Your task to perform on an android device: change the clock display to analog Image 0: 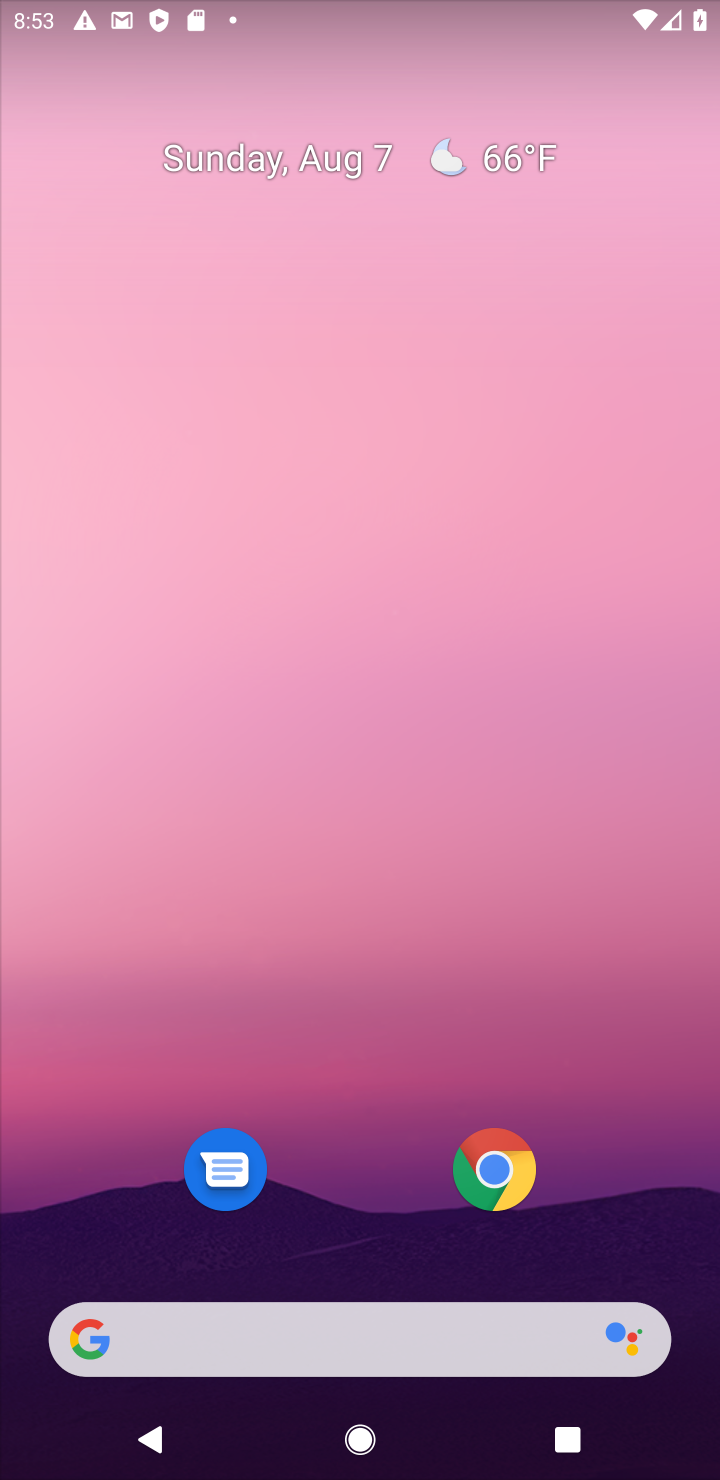
Step 0: drag from (327, 1265) to (198, 129)
Your task to perform on an android device: change the clock display to analog Image 1: 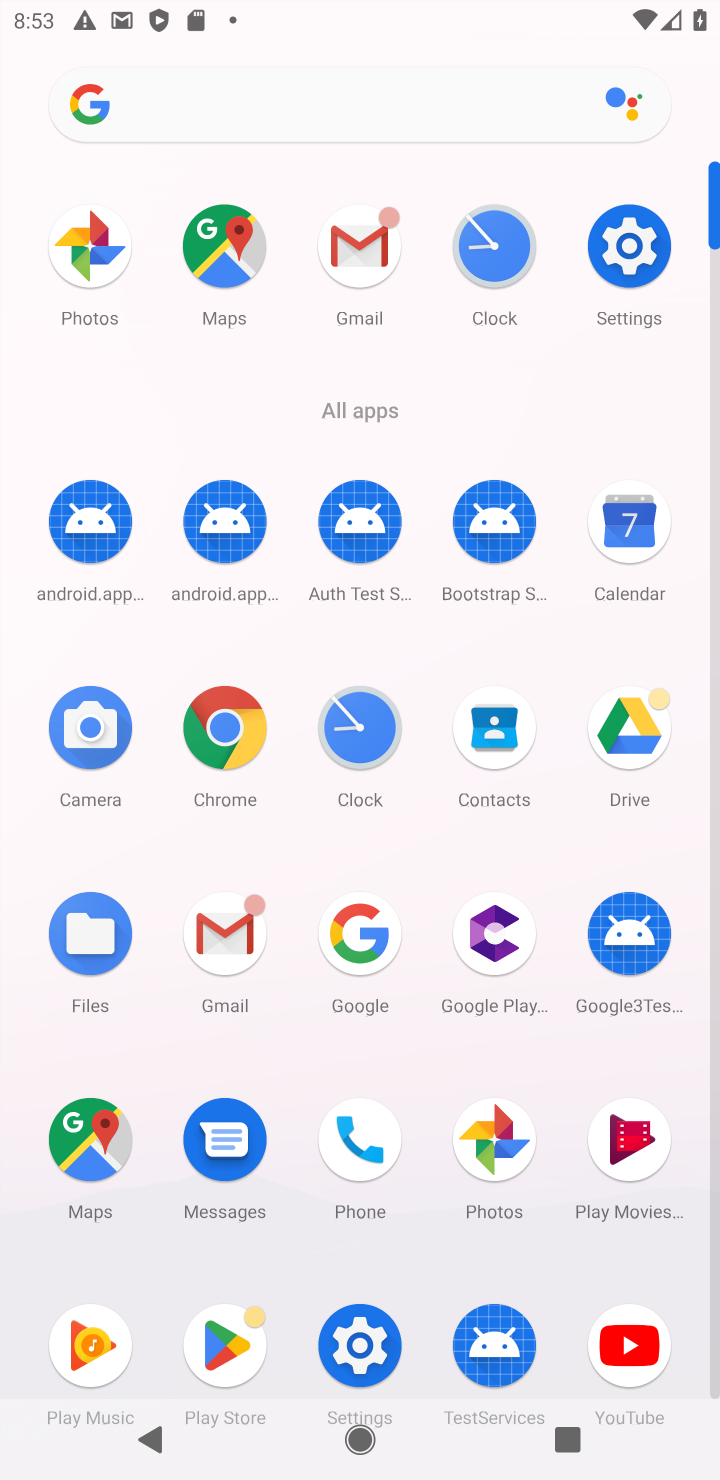
Step 1: click (354, 723)
Your task to perform on an android device: change the clock display to analog Image 2: 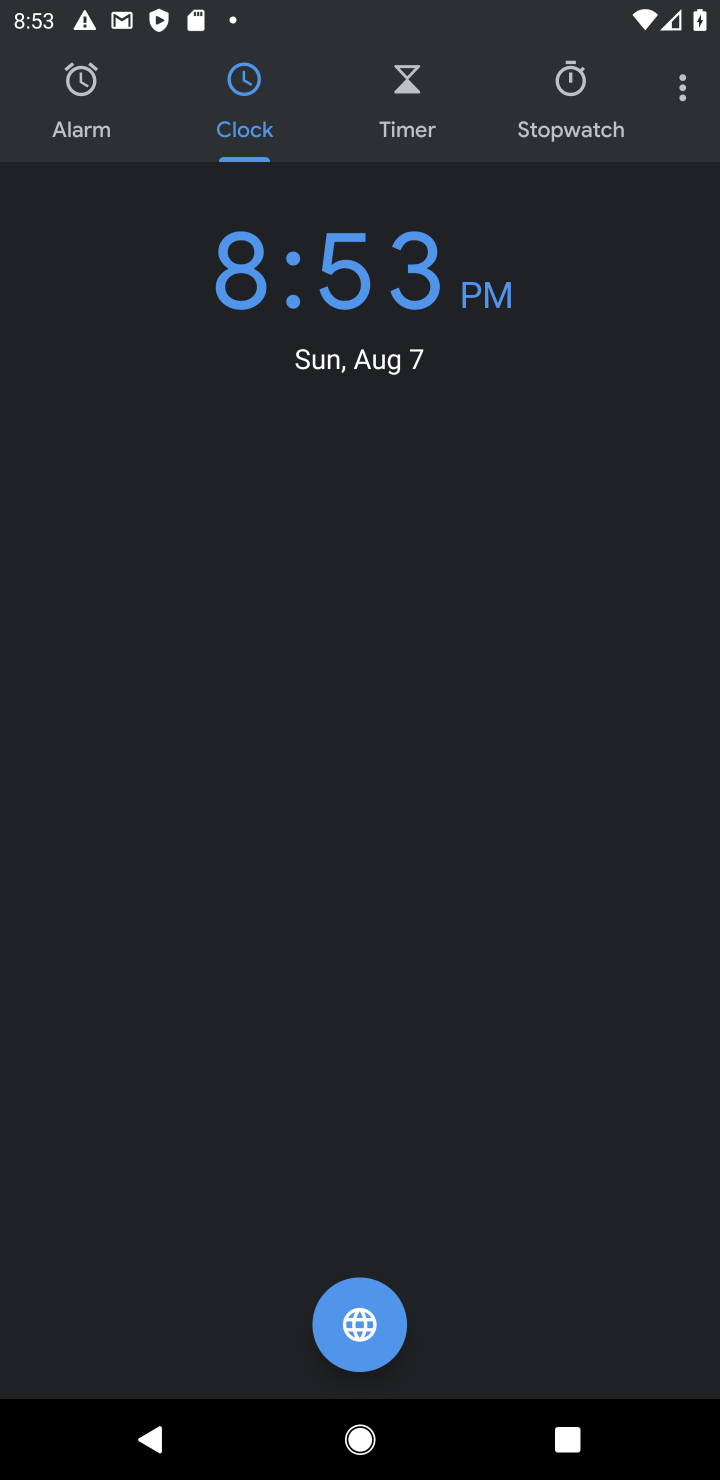
Step 2: click (676, 93)
Your task to perform on an android device: change the clock display to analog Image 3: 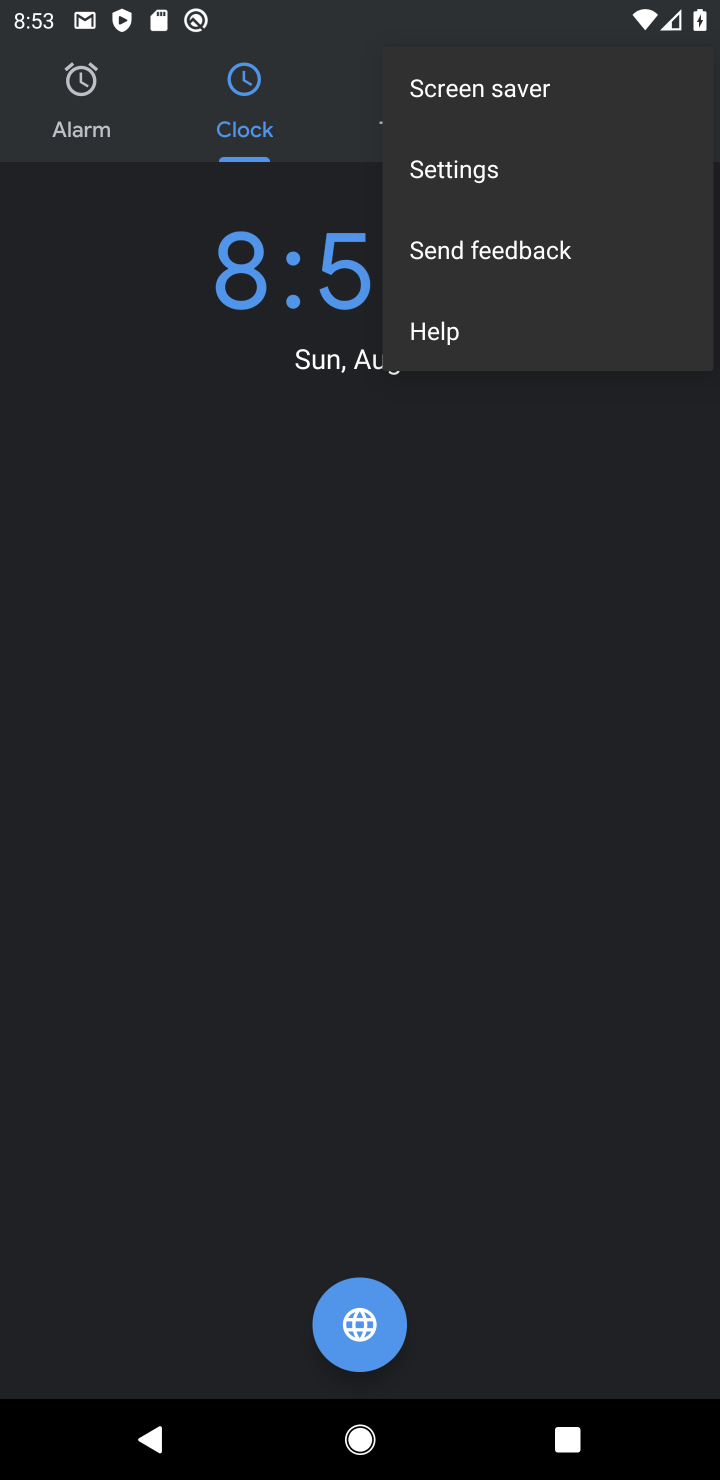
Step 3: click (480, 173)
Your task to perform on an android device: change the clock display to analog Image 4: 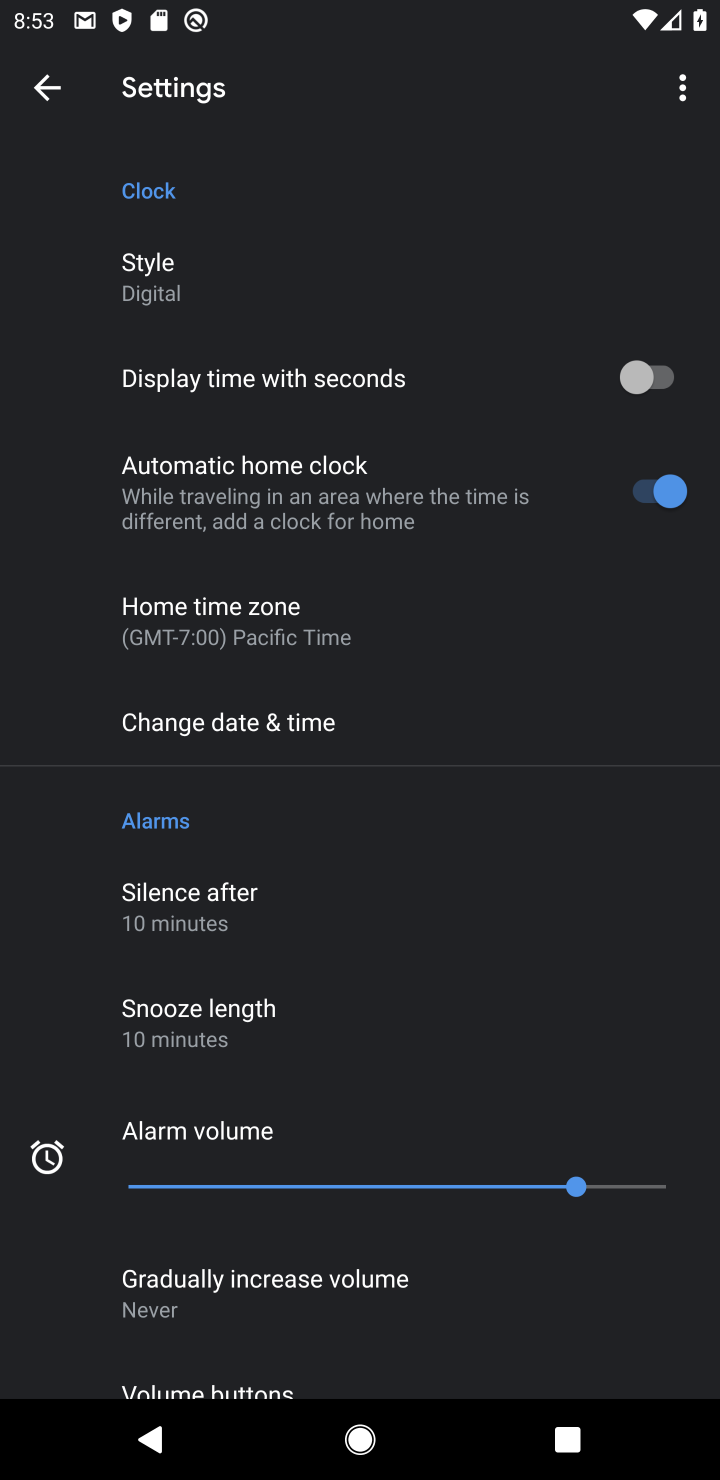
Step 4: click (170, 266)
Your task to perform on an android device: change the clock display to analog Image 5: 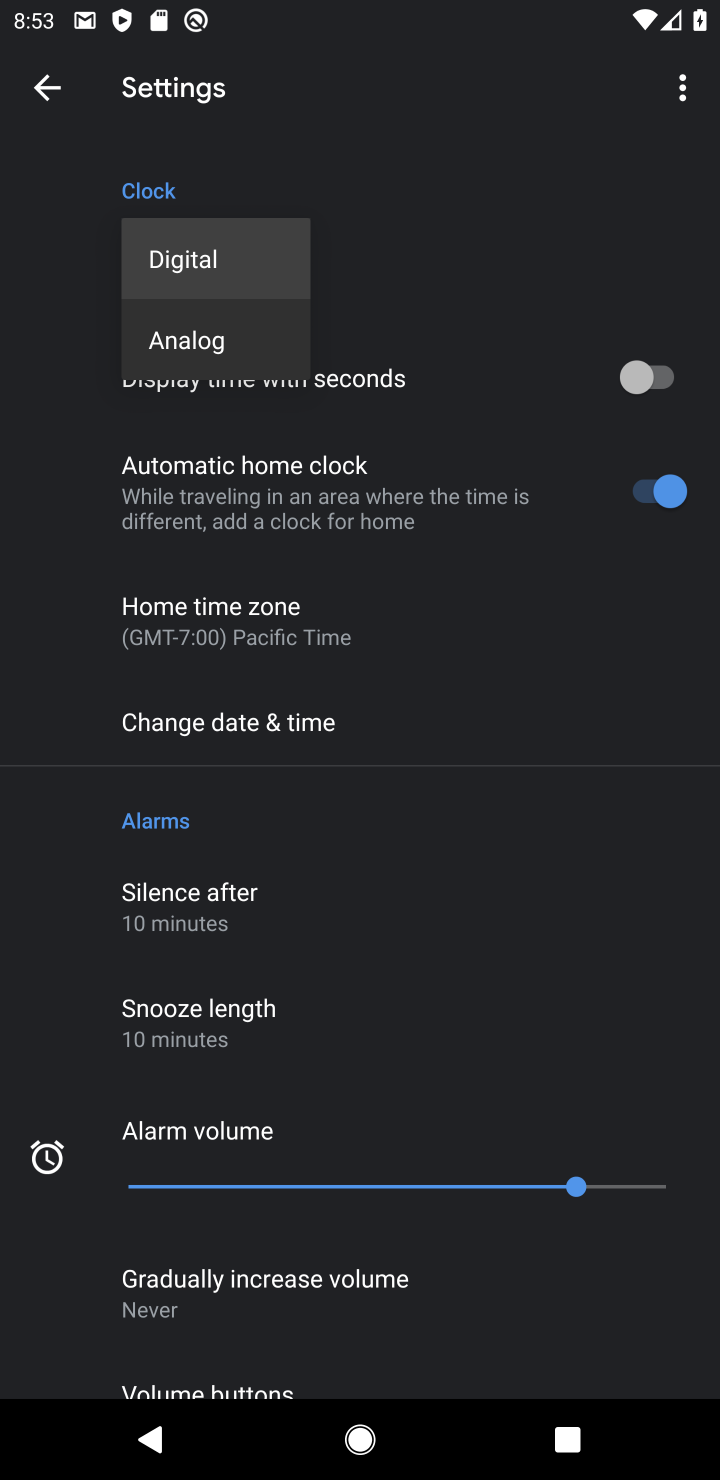
Step 5: click (184, 355)
Your task to perform on an android device: change the clock display to analog Image 6: 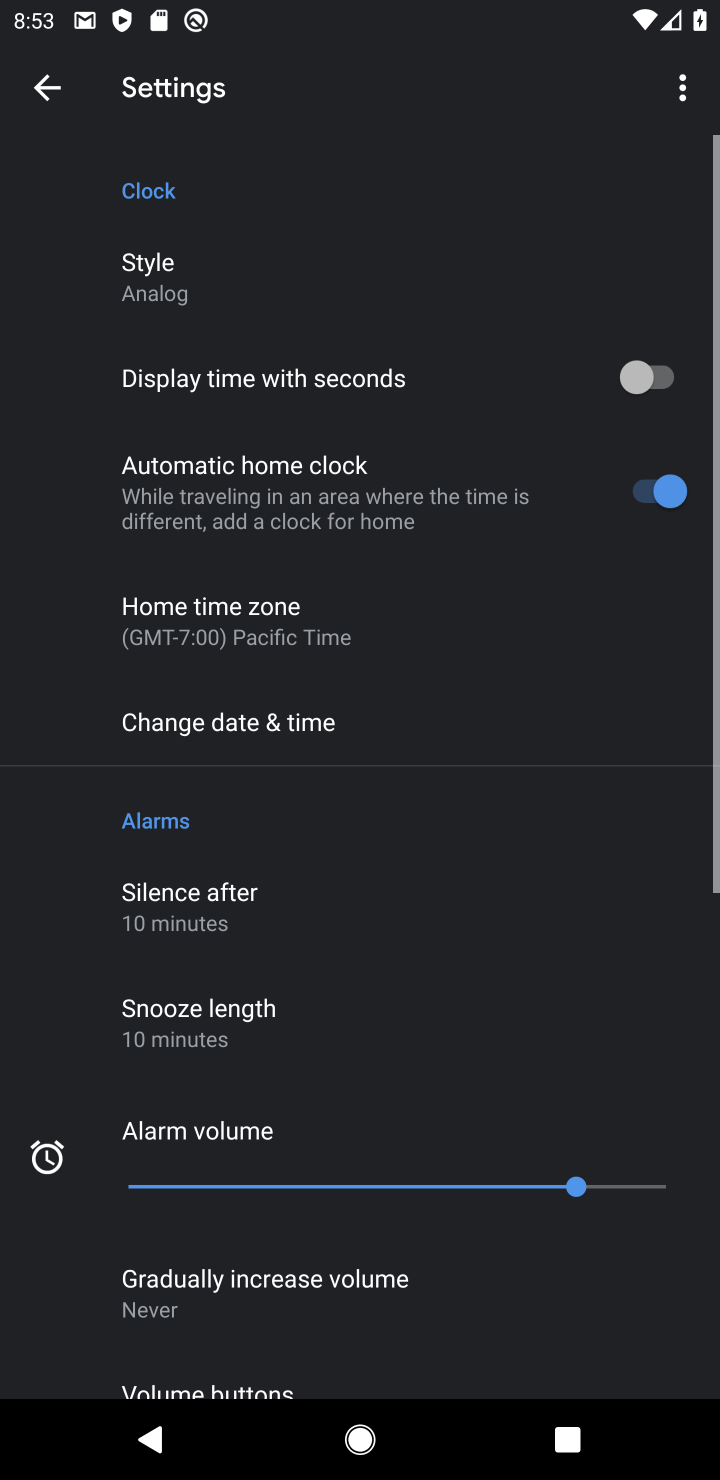
Step 6: task complete